Your task to perform on an android device: Add "razer kraken" to the cart on bestbuy, then select checkout. Image 0: 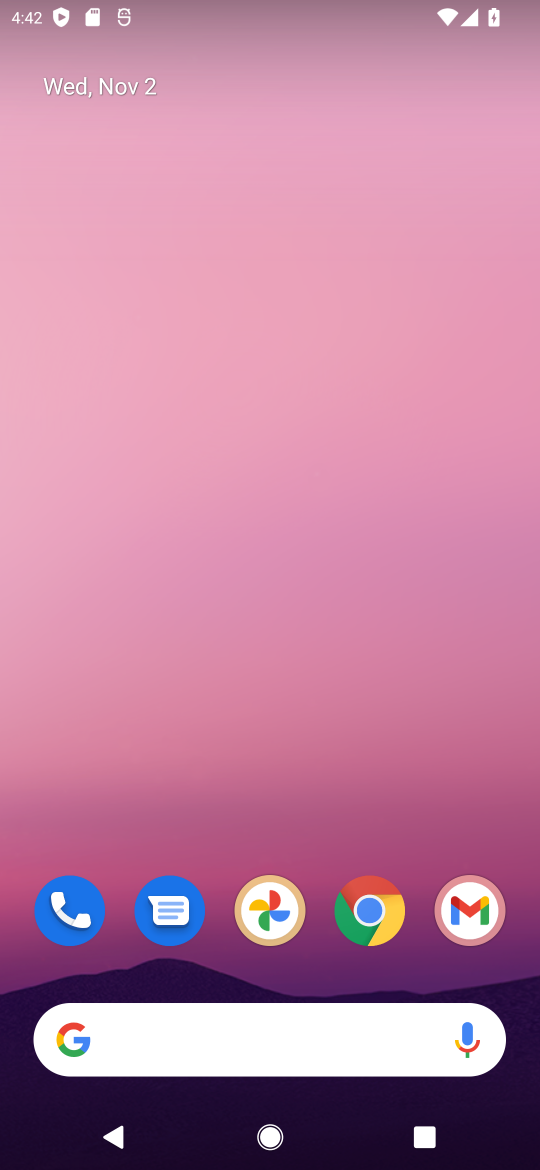
Step 0: click (371, 911)
Your task to perform on an android device: Add "razer kraken" to the cart on bestbuy, then select checkout. Image 1: 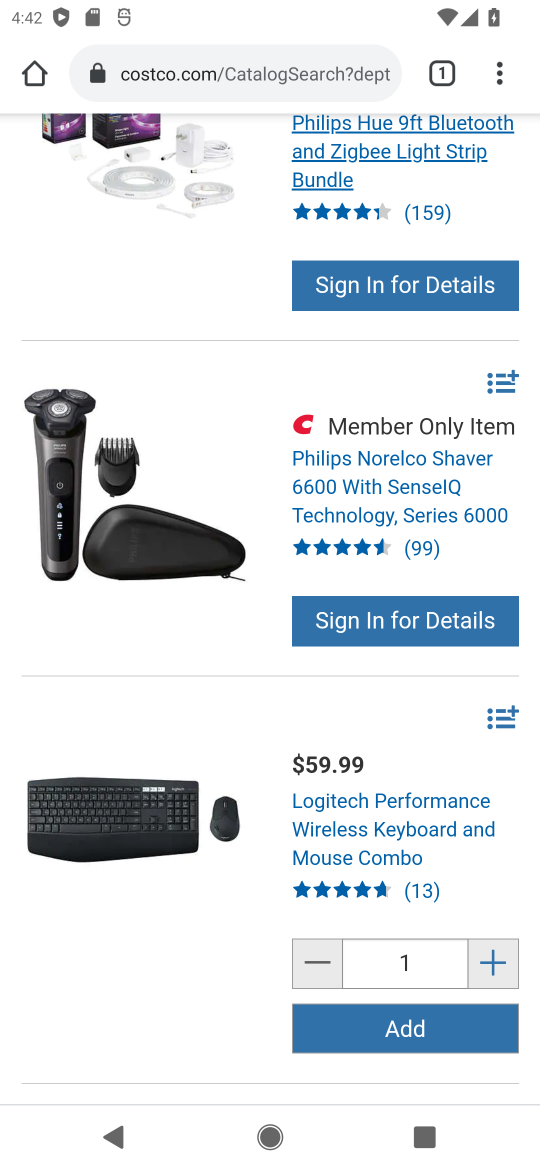
Step 1: click (213, 100)
Your task to perform on an android device: Add "razer kraken" to the cart on bestbuy, then select checkout. Image 2: 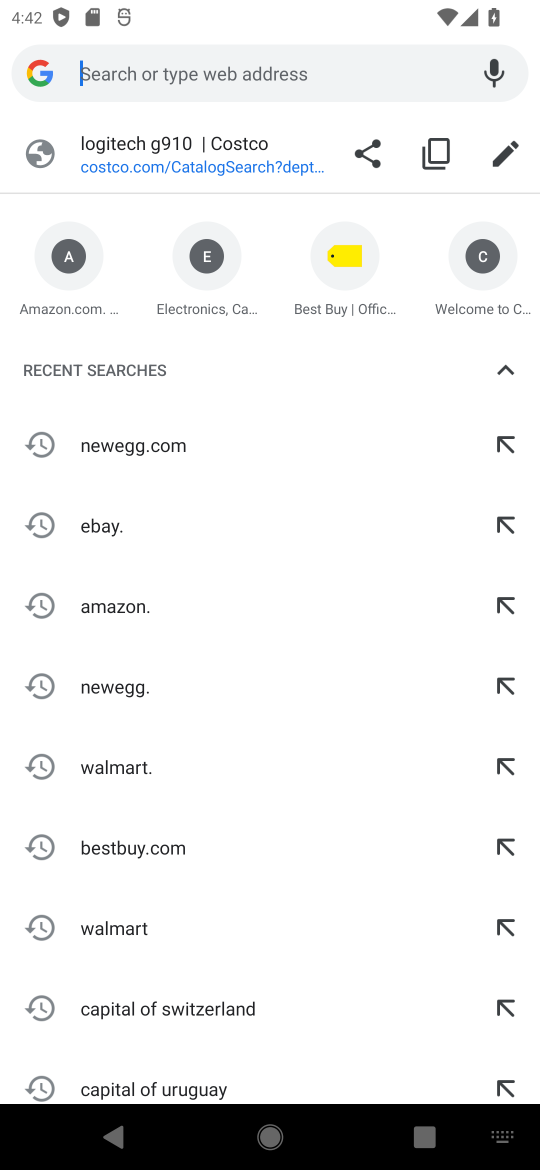
Step 2: type "bestbuy"
Your task to perform on an android device: Add "razer kraken" to the cart on bestbuy, then select checkout. Image 3: 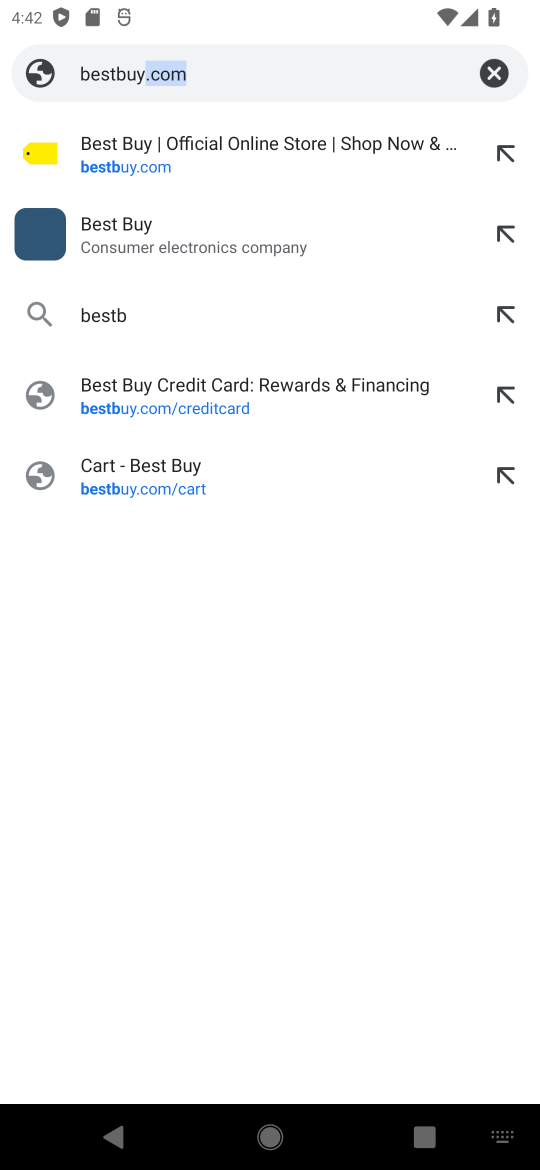
Step 3: type ""
Your task to perform on an android device: Add "razer kraken" to the cart on bestbuy, then select checkout. Image 4: 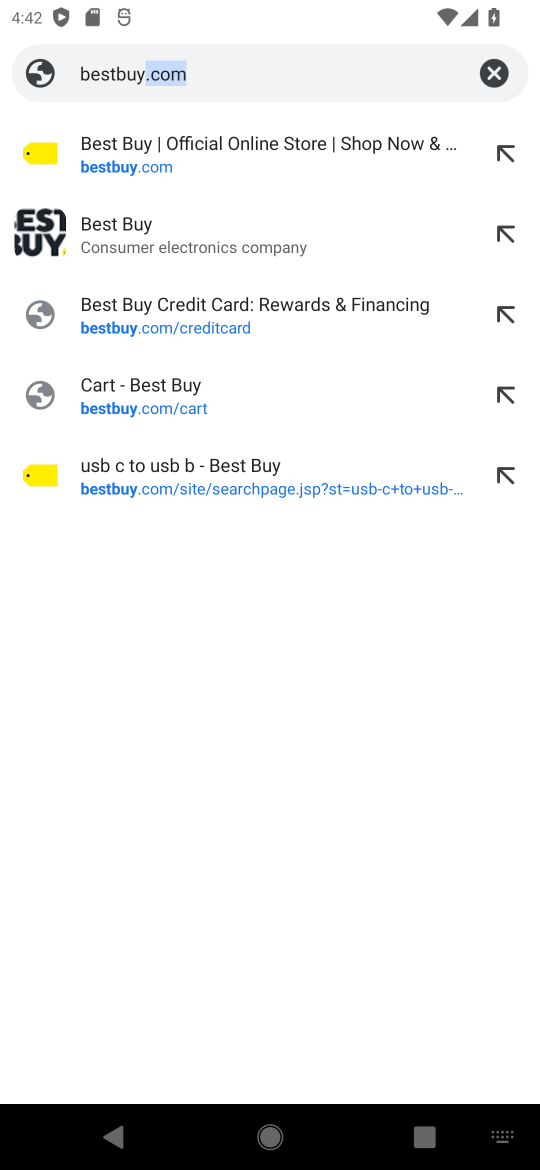
Step 4: click (339, 179)
Your task to perform on an android device: Add "razer kraken" to the cart on bestbuy, then select checkout. Image 5: 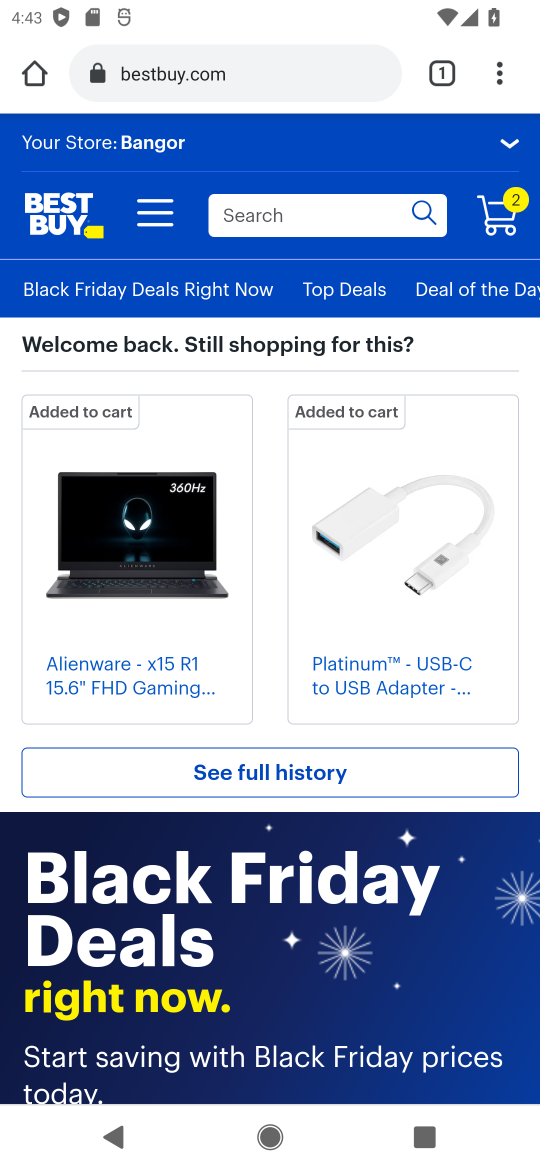
Step 5: click (488, 206)
Your task to perform on an android device: Add "razer kraken" to the cart on bestbuy, then select checkout. Image 6: 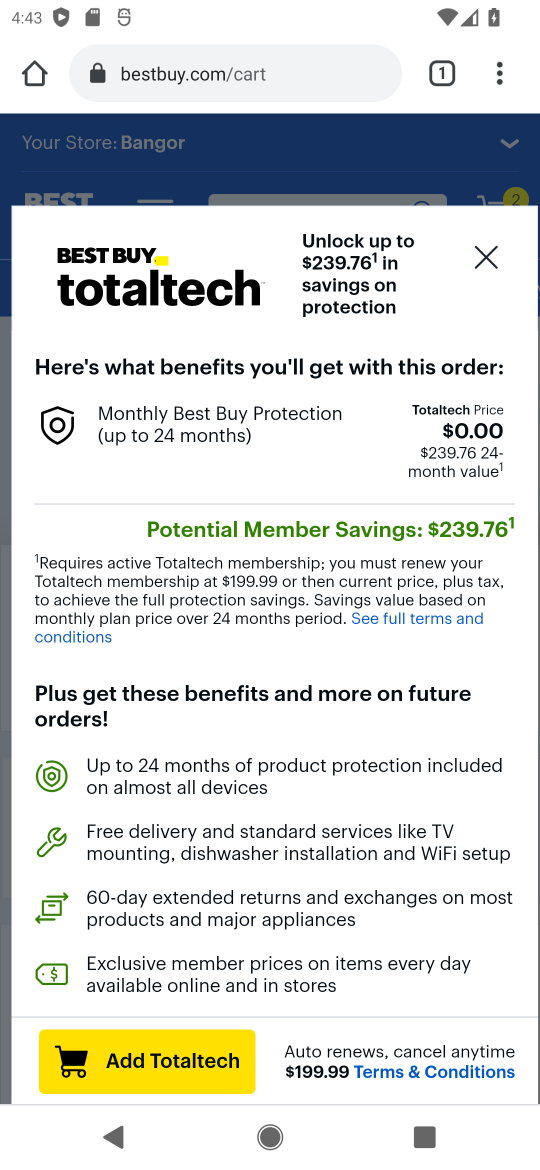
Step 6: click (476, 268)
Your task to perform on an android device: Add "razer kraken" to the cart on bestbuy, then select checkout. Image 7: 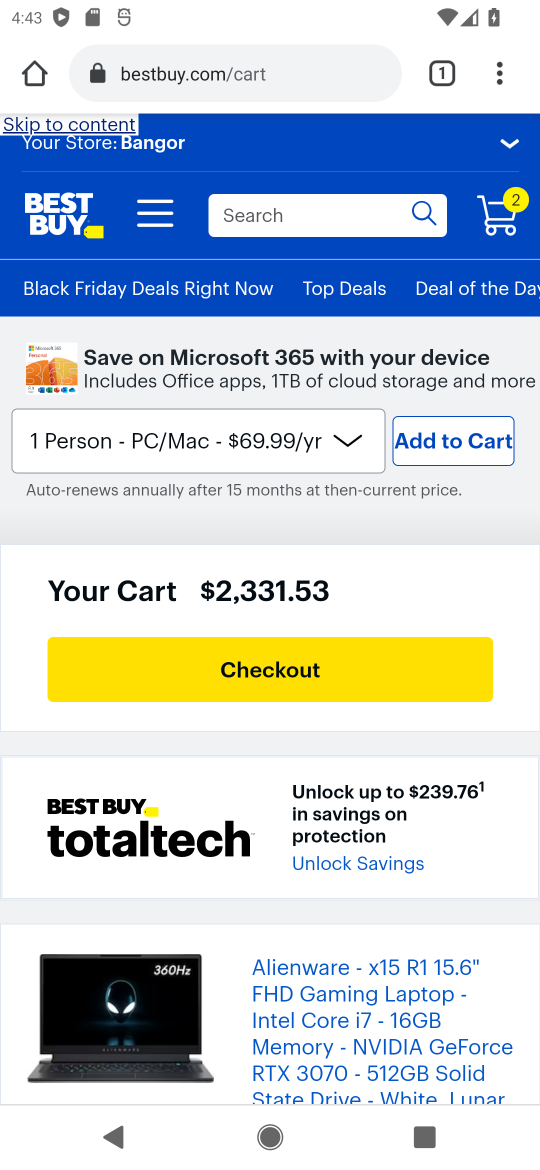
Step 7: drag from (340, 828) to (424, 304)
Your task to perform on an android device: Add "razer kraken" to the cart on bestbuy, then select checkout. Image 8: 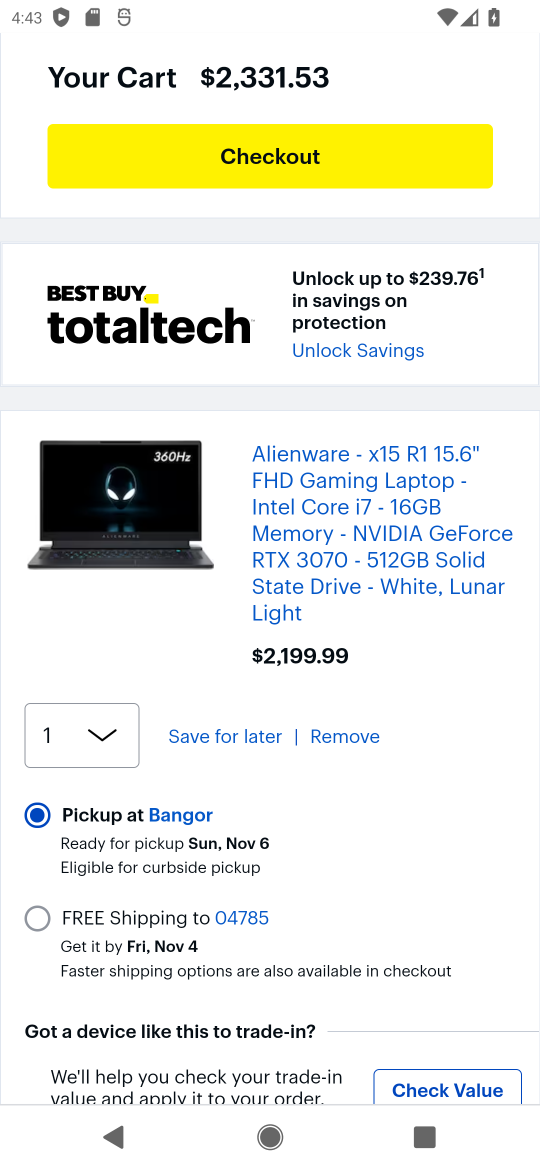
Step 8: click (330, 739)
Your task to perform on an android device: Add "razer kraken" to the cart on bestbuy, then select checkout. Image 9: 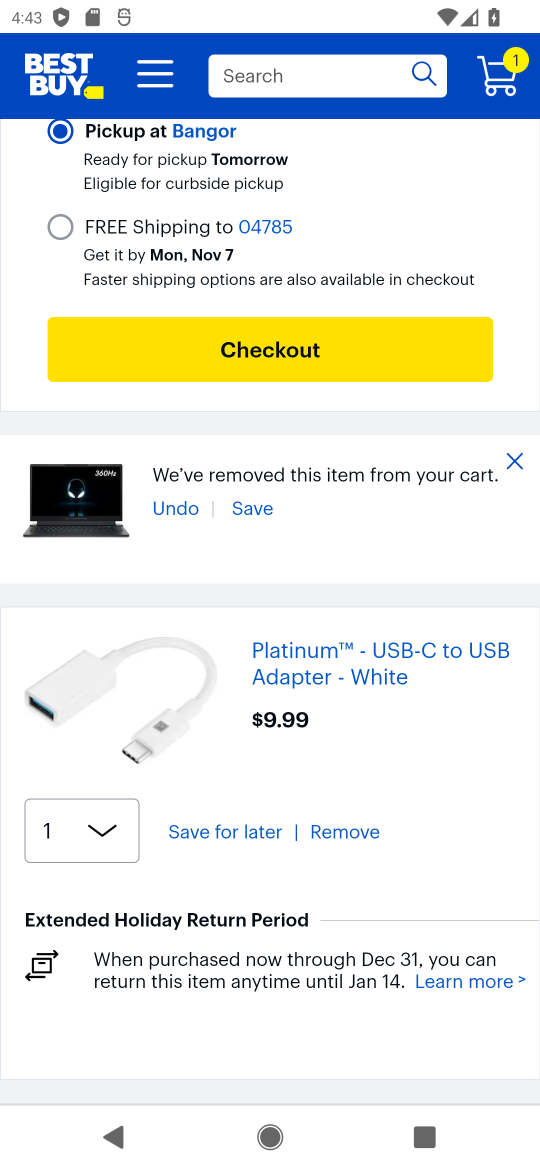
Step 9: click (353, 816)
Your task to perform on an android device: Add "razer kraken" to the cart on bestbuy, then select checkout. Image 10: 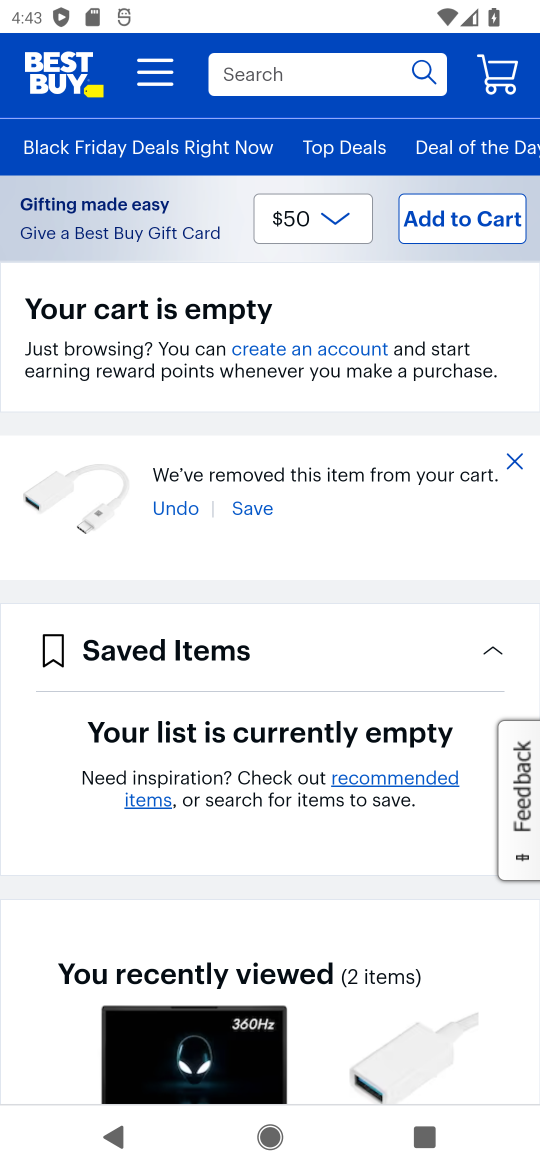
Step 10: click (259, 67)
Your task to perform on an android device: Add "razer kraken" to the cart on bestbuy, then select checkout. Image 11: 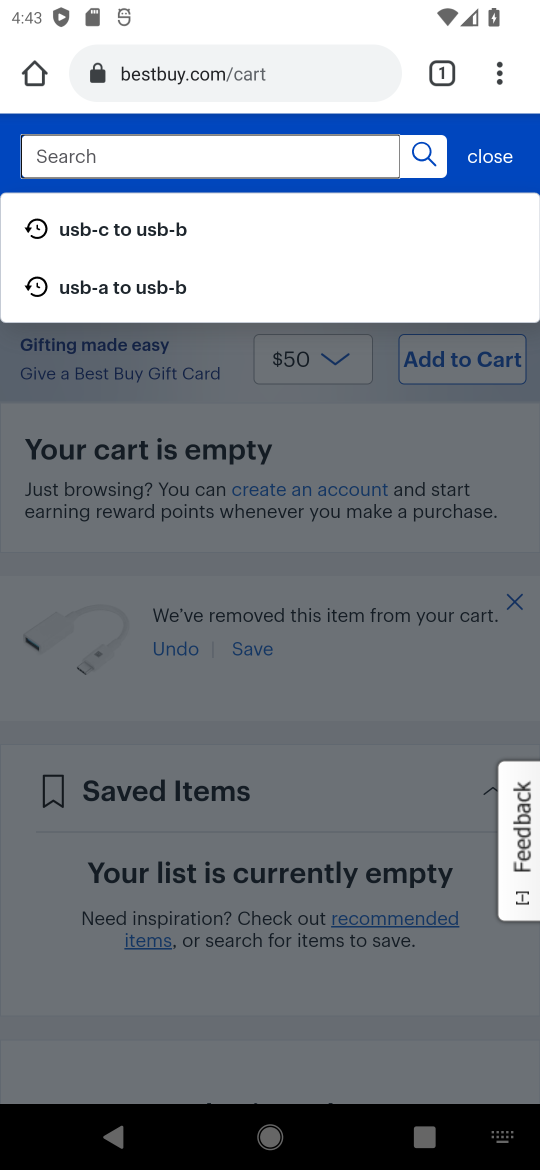
Step 11: type "razer kraken"
Your task to perform on an android device: Add "razer kraken" to the cart on bestbuy, then select checkout. Image 12: 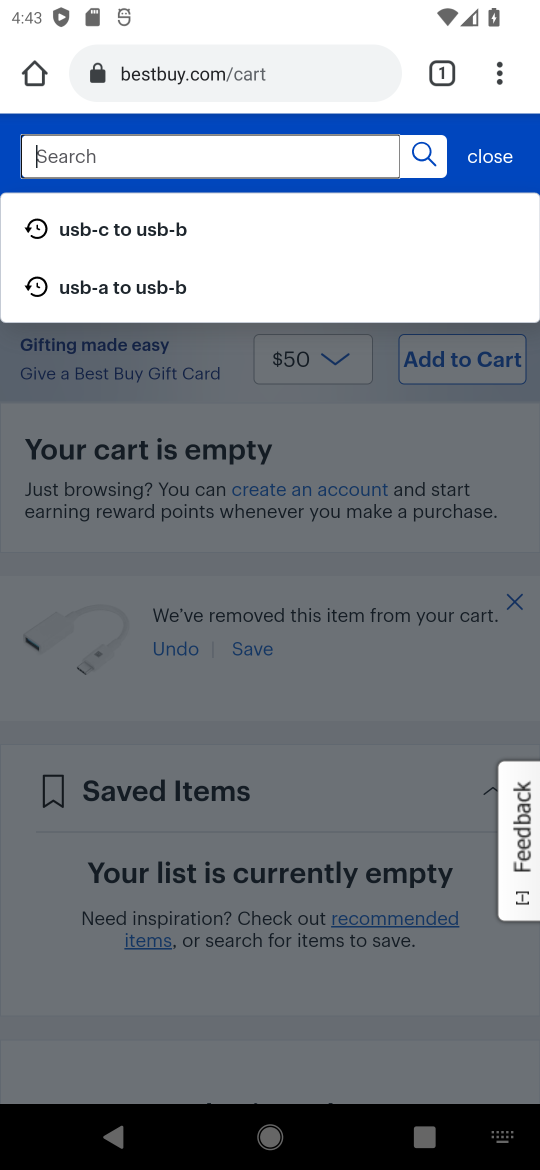
Step 12: type ""
Your task to perform on an android device: Add "razer kraken" to the cart on bestbuy, then select checkout. Image 13: 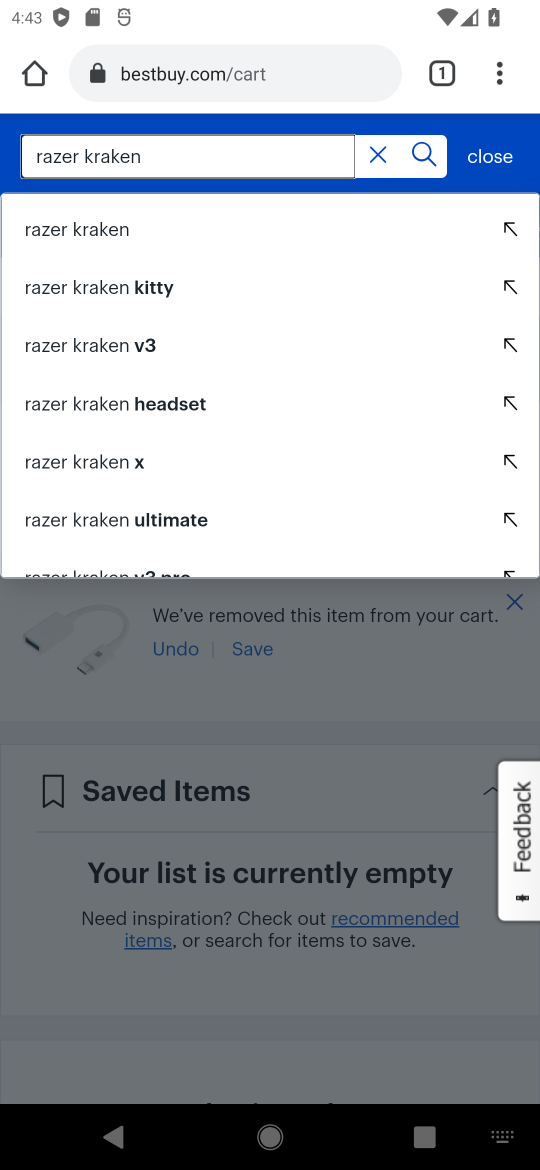
Step 13: click (115, 228)
Your task to perform on an android device: Add "razer kraken" to the cart on bestbuy, then select checkout. Image 14: 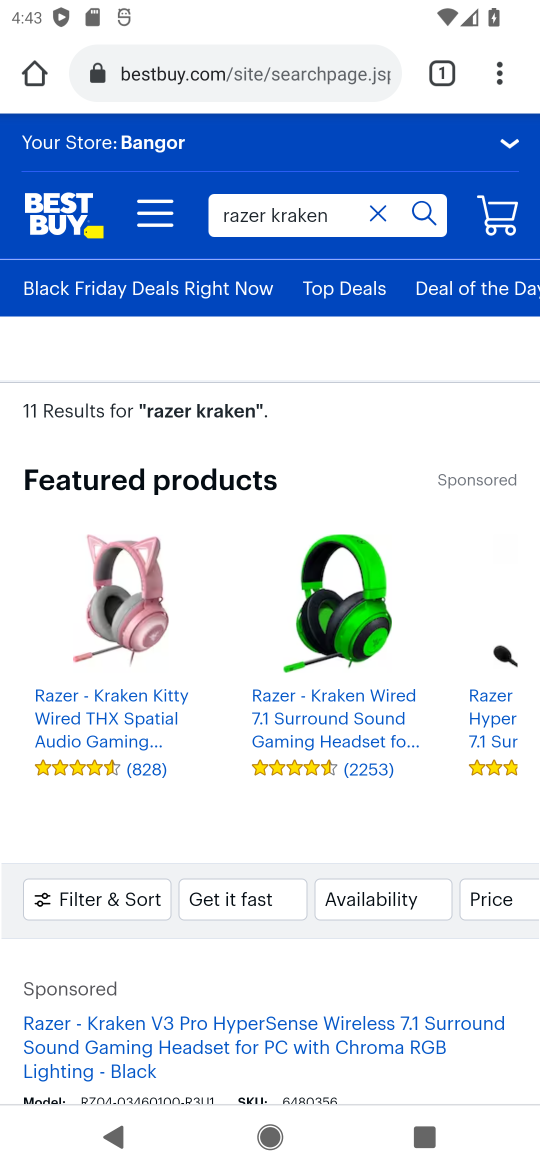
Step 14: drag from (375, 786) to (408, 558)
Your task to perform on an android device: Add "razer kraken" to the cart on bestbuy, then select checkout. Image 15: 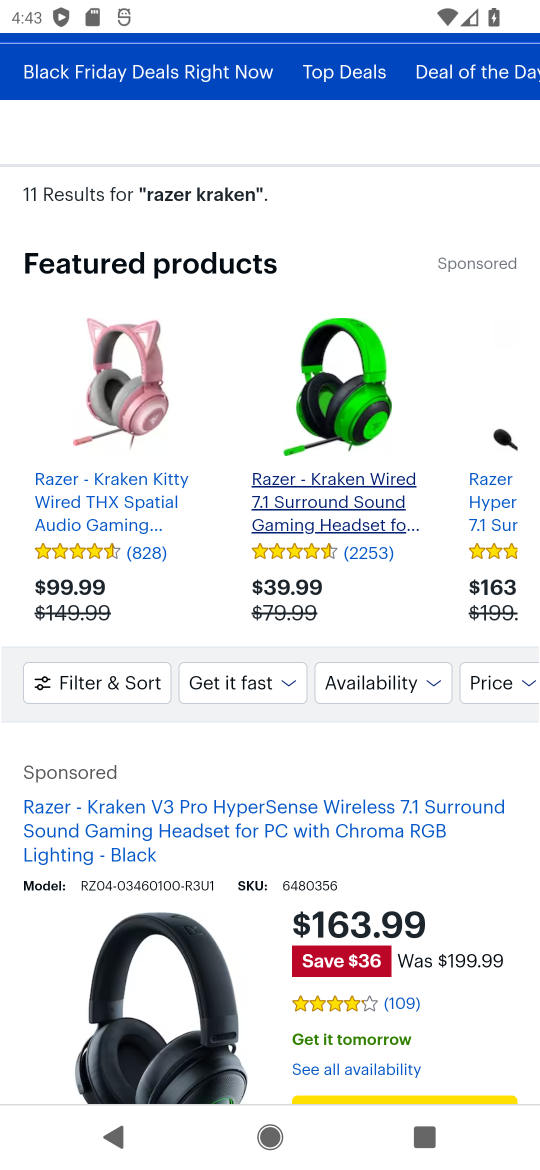
Step 15: click (108, 511)
Your task to perform on an android device: Add "razer kraken" to the cart on bestbuy, then select checkout. Image 16: 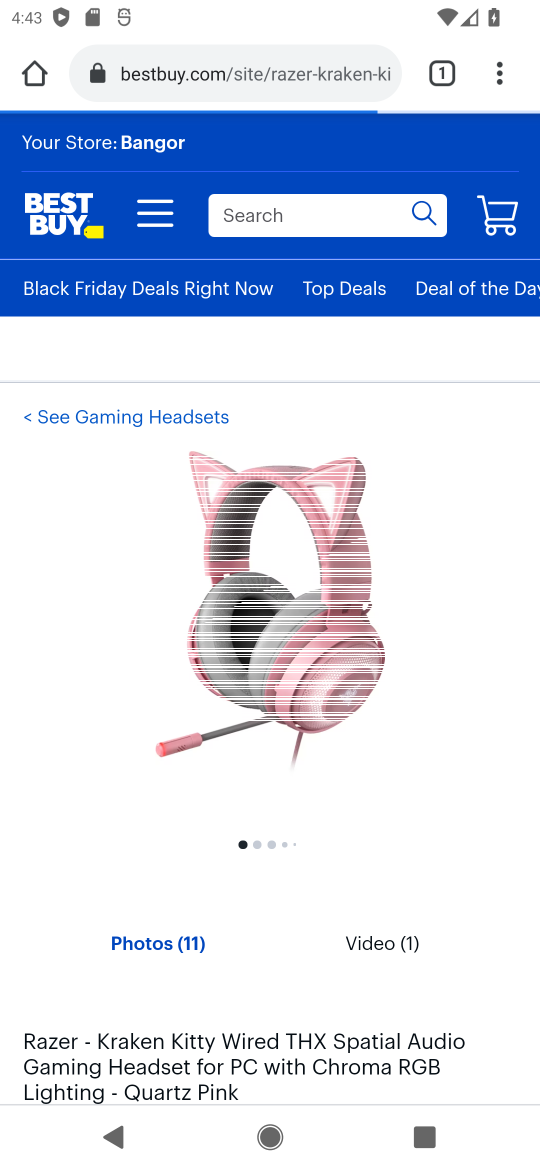
Step 16: drag from (215, 817) to (271, 308)
Your task to perform on an android device: Add "razer kraken" to the cart on bestbuy, then select checkout. Image 17: 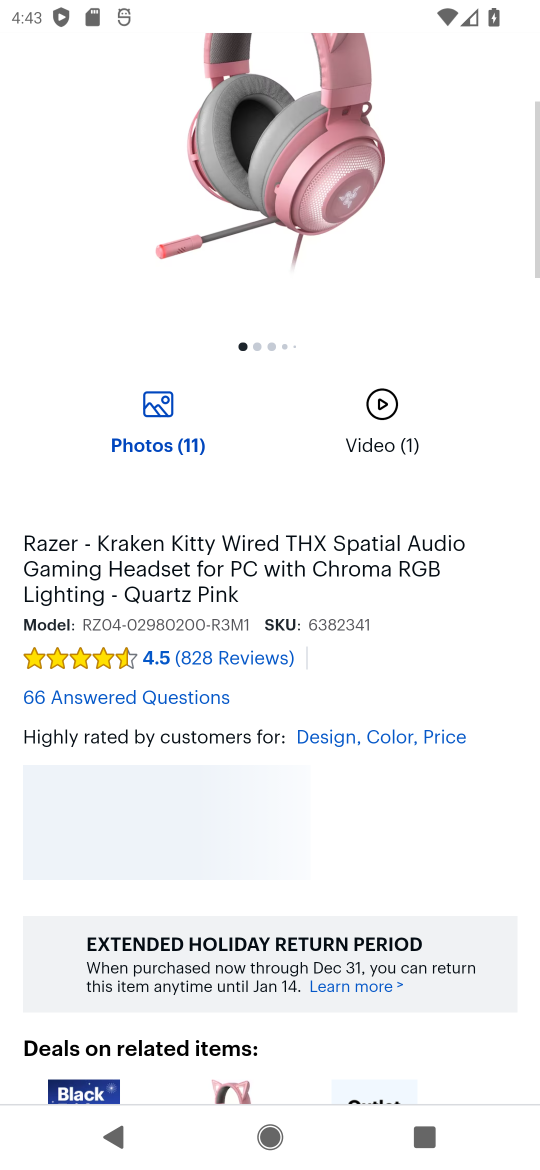
Step 17: drag from (355, 731) to (341, 296)
Your task to perform on an android device: Add "razer kraken" to the cart on bestbuy, then select checkout. Image 18: 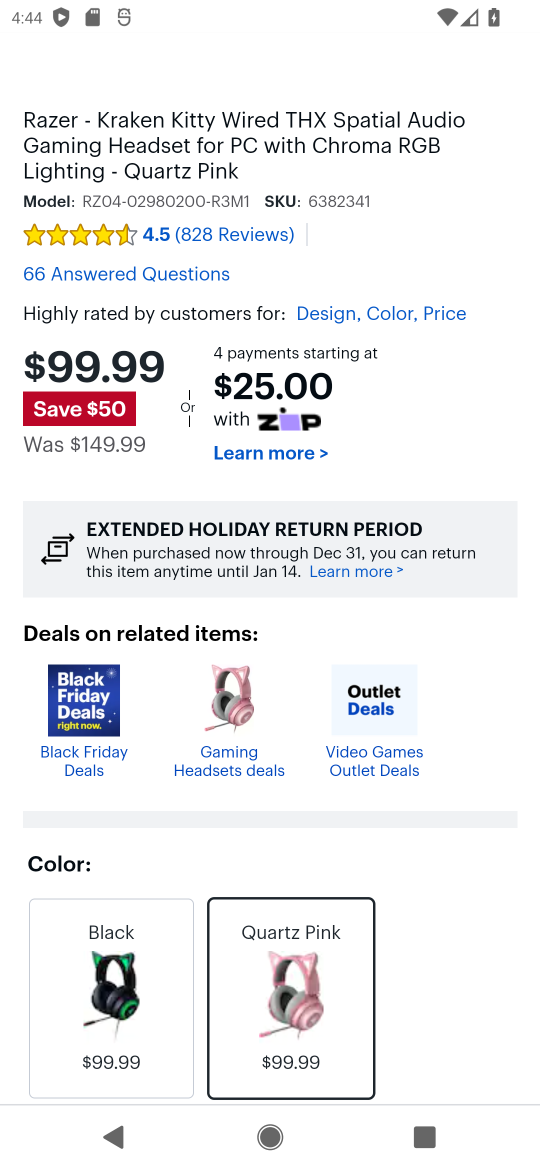
Step 18: drag from (298, 793) to (318, 333)
Your task to perform on an android device: Add "razer kraken" to the cart on bestbuy, then select checkout. Image 19: 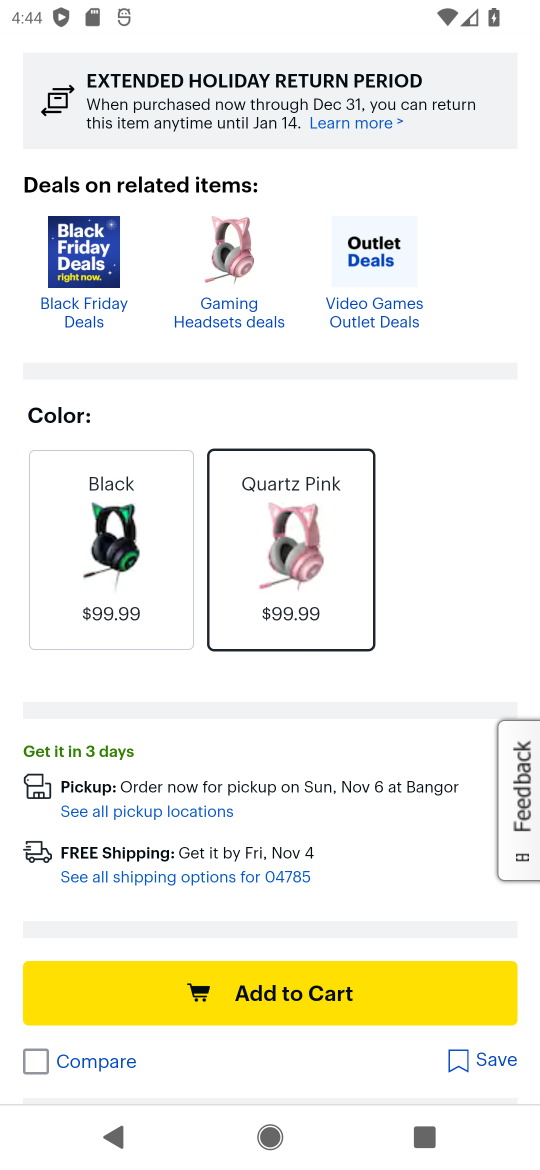
Step 19: click (364, 983)
Your task to perform on an android device: Add "razer kraken" to the cart on bestbuy, then select checkout. Image 20: 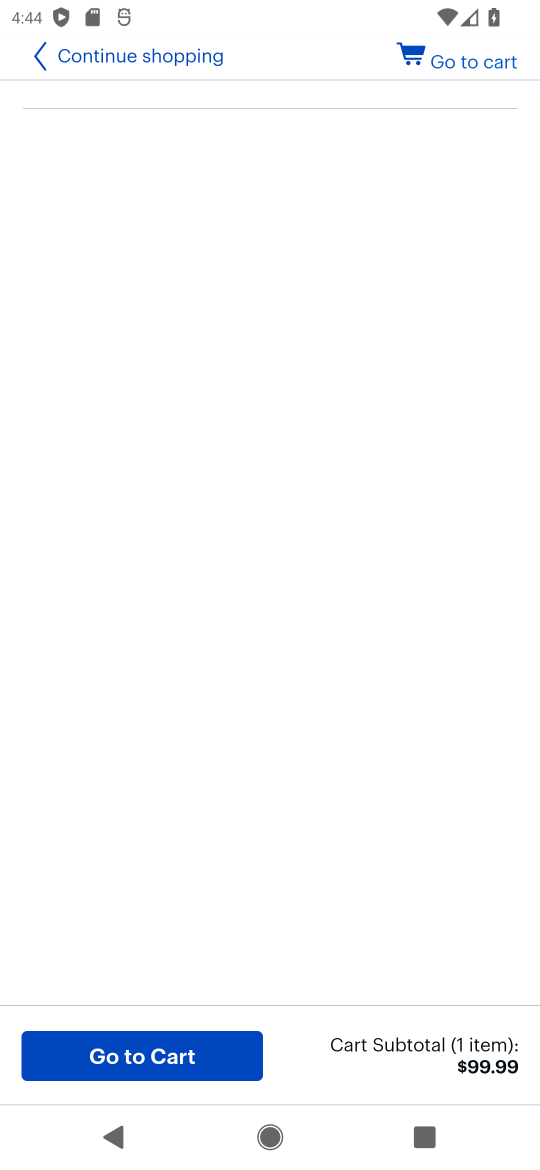
Step 20: click (495, 81)
Your task to perform on an android device: Add "razer kraken" to the cart on bestbuy, then select checkout. Image 21: 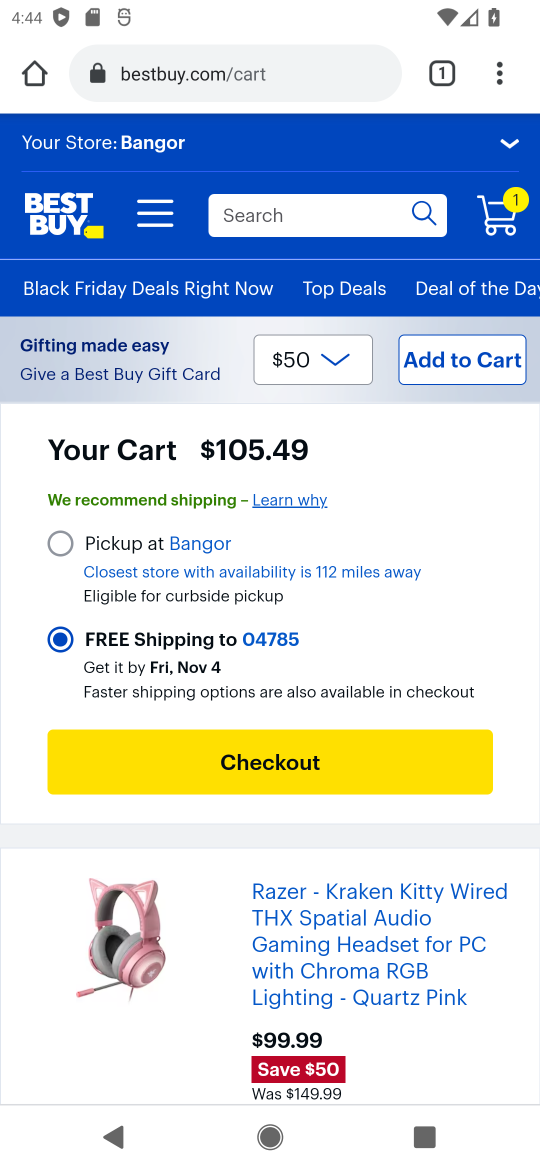
Step 21: click (373, 755)
Your task to perform on an android device: Add "razer kraken" to the cart on bestbuy, then select checkout. Image 22: 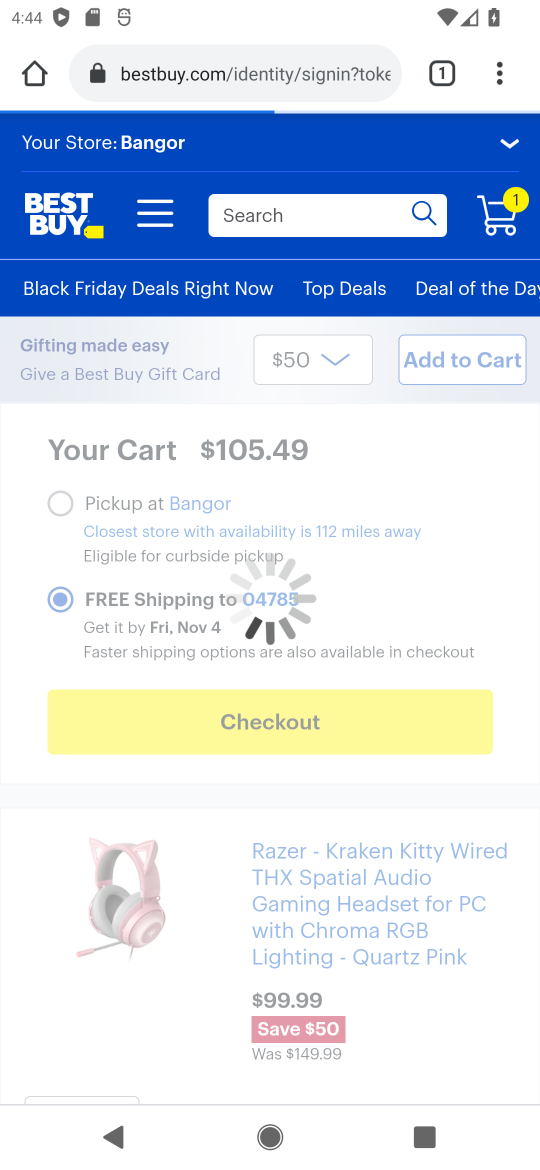
Step 22: task complete